Your task to perform on an android device: open the mobile data screen to see how much data has been used Image 0: 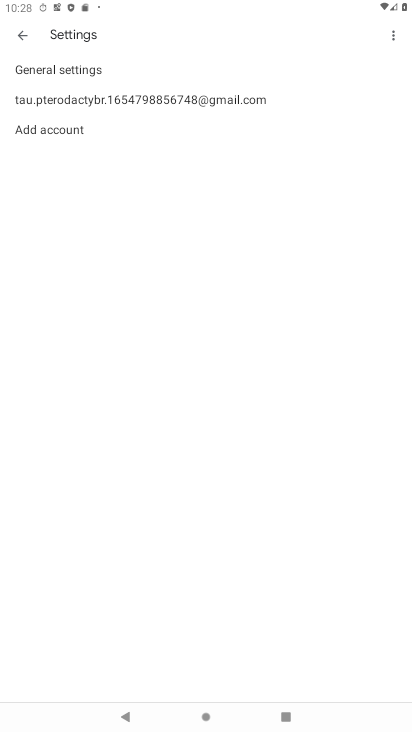
Step 0: press home button
Your task to perform on an android device: open the mobile data screen to see how much data has been used Image 1: 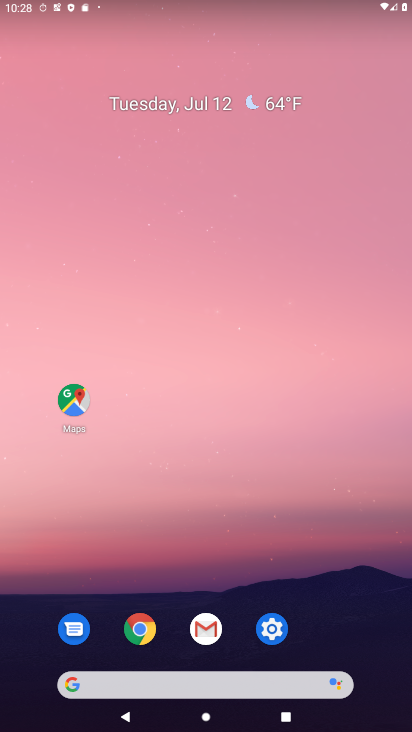
Step 1: click (272, 628)
Your task to perform on an android device: open the mobile data screen to see how much data has been used Image 2: 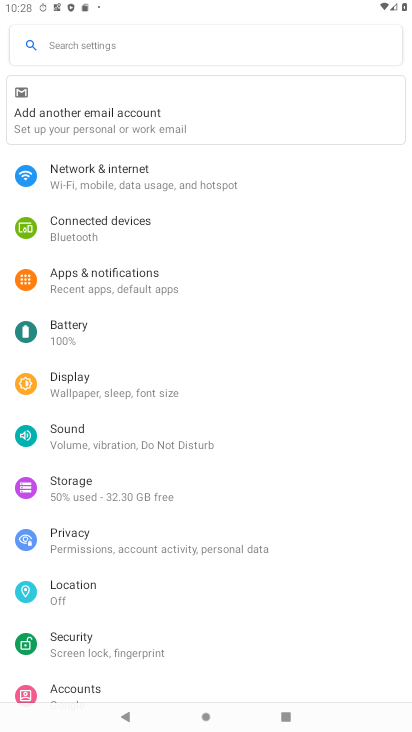
Step 2: click (111, 48)
Your task to perform on an android device: open the mobile data screen to see how much data has been used Image 3: 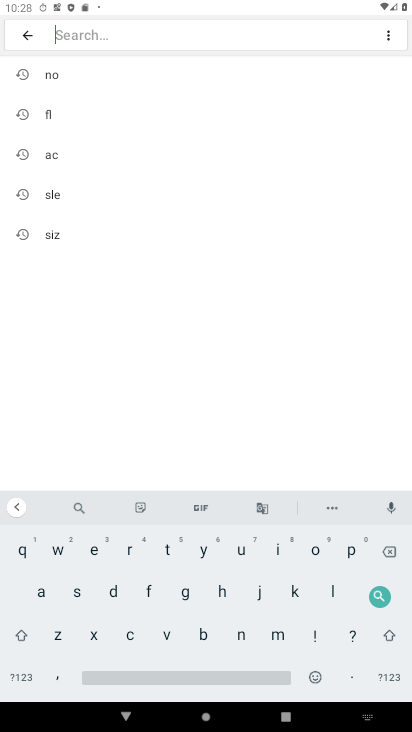
Step 3: click (111, 596)
Your task to perform on an android device: open the mobile data screen to see how much data has been used Image 4: 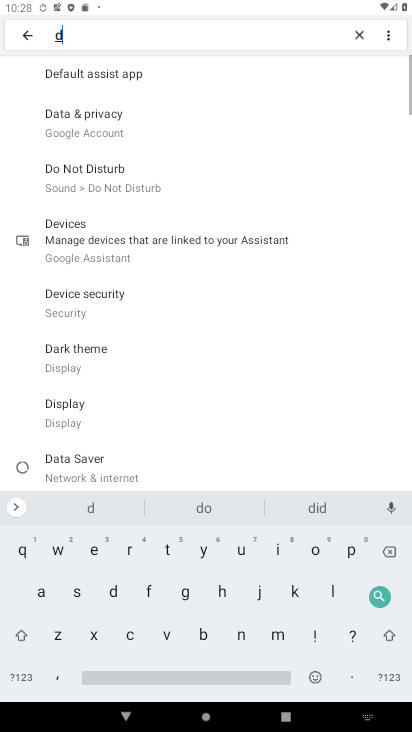
Step 4: click (36, 611)
Your task to perform on an android device: open the mobile data screen to see how much data has been used Image 5: 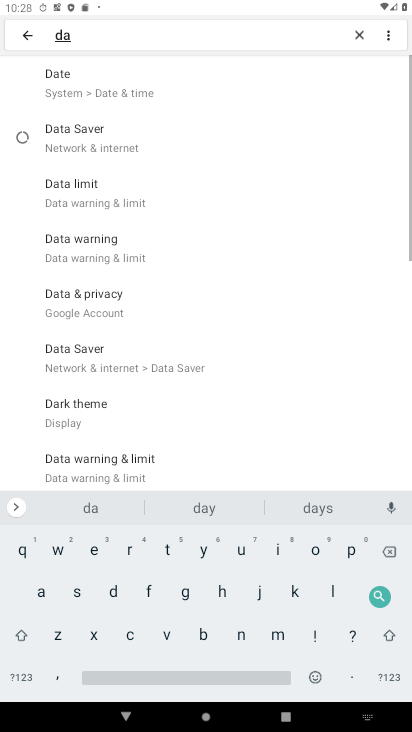
Step 5: click (165, 549)
Your task to perform on an android device: open the mobile data screen to see how much data has been used Image 6: 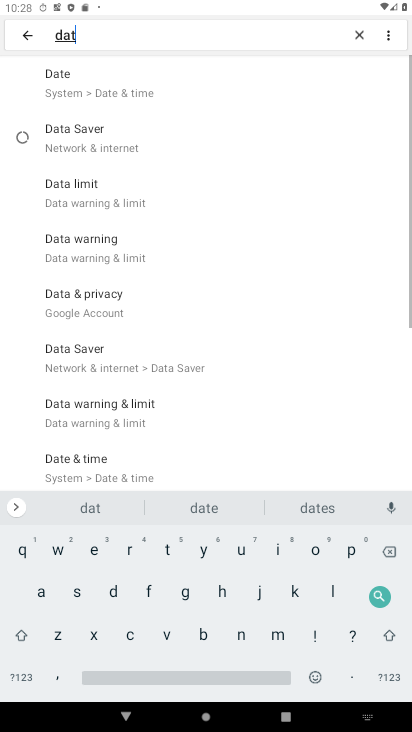
Step 6: click (42, 588)
Your task to perform on an android device: open the mobile data screen to see how much data has been used Image 7: 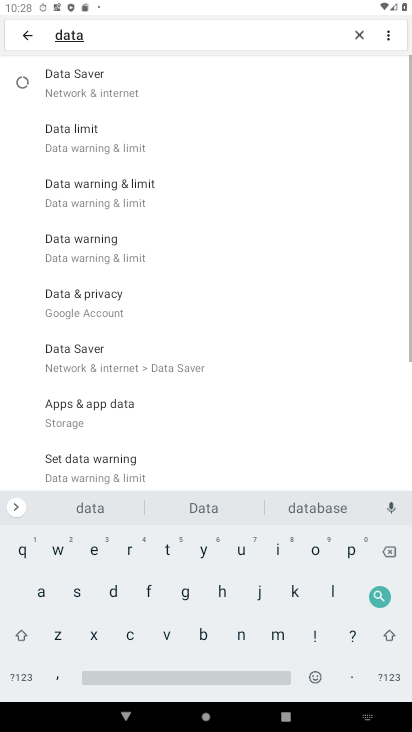
Step 7: click (161, 676)
Your task to perform on an android device: open the mobile data screen to see how much data has been used Image 8: 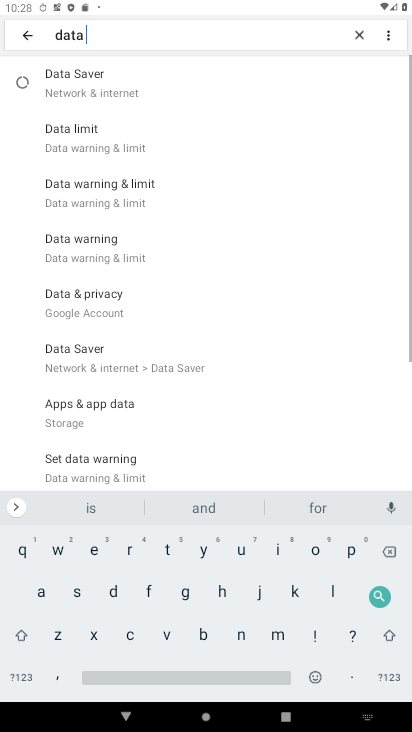
Step 8: click (238, 550)
Your task to perform on an android device: open the mobile data screen to see how much data has been used Image 9: 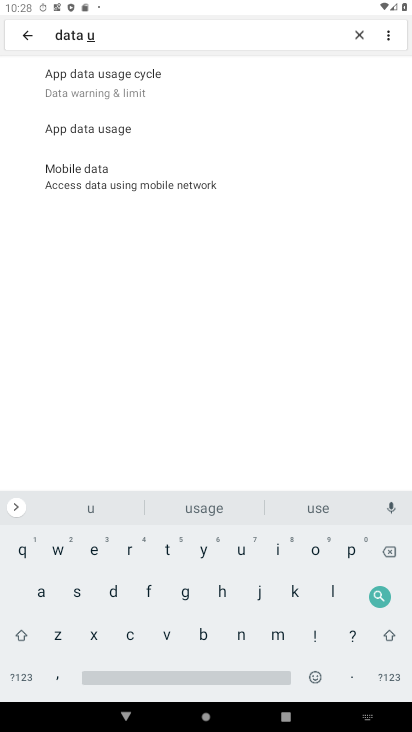
Step 9: click (87, 143)
Your task to perform on an android device: open the mobile data screen to see how much data has been used Image 10: 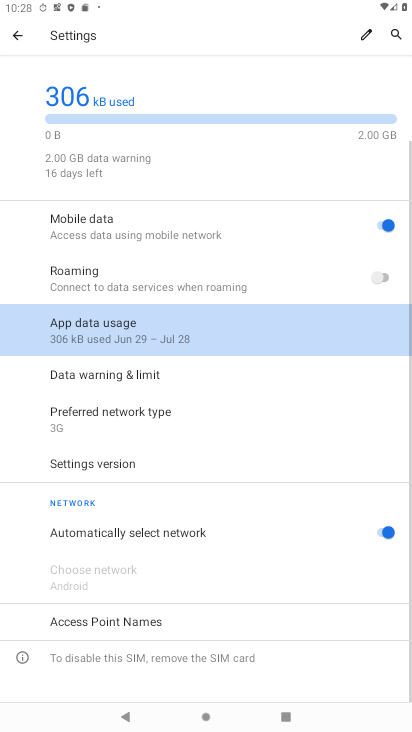
Step 10: click (158, 325)
Your task to perform on an android device: open the mobile data screen to see how much data has been used Image 11: 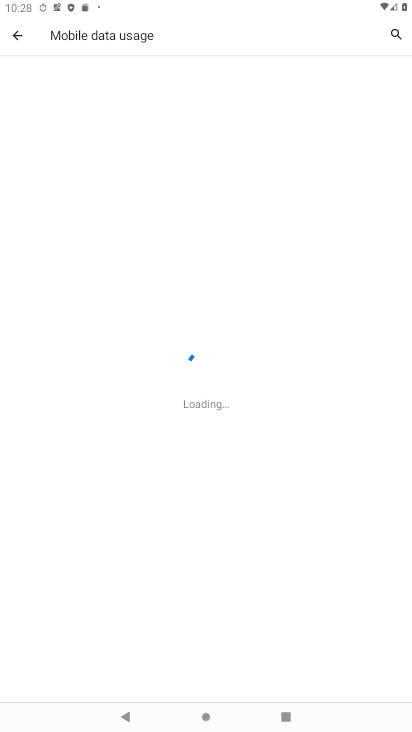
Step 11: task complete